Your task to perform on an android device: What's the weather going to be this weekend? Image 0: 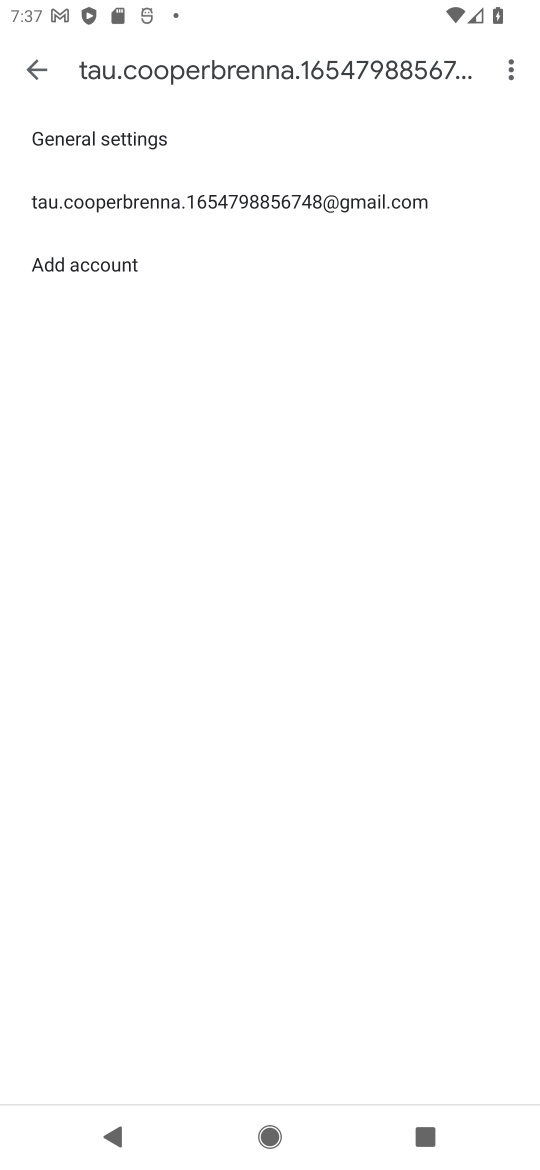
Step 0: press home button
Your task to perform on an android device: What's the weather going to be this weekend? Image 1: 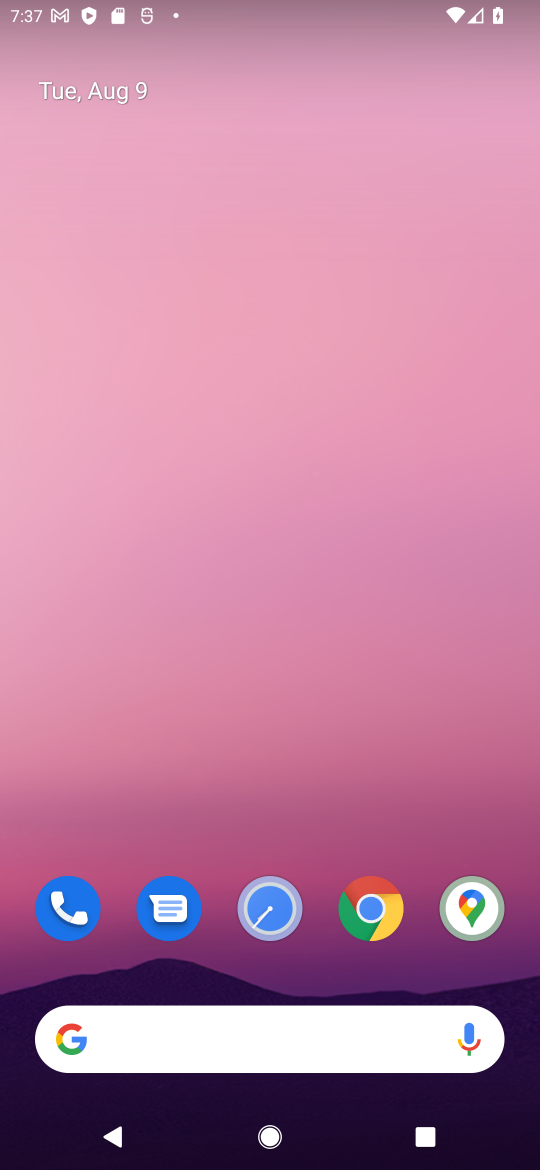
Step 1: drag from (306, 954) to (252, 84)
Your task to perform on an android device: What's the weather going to be this weekend? Image 2: 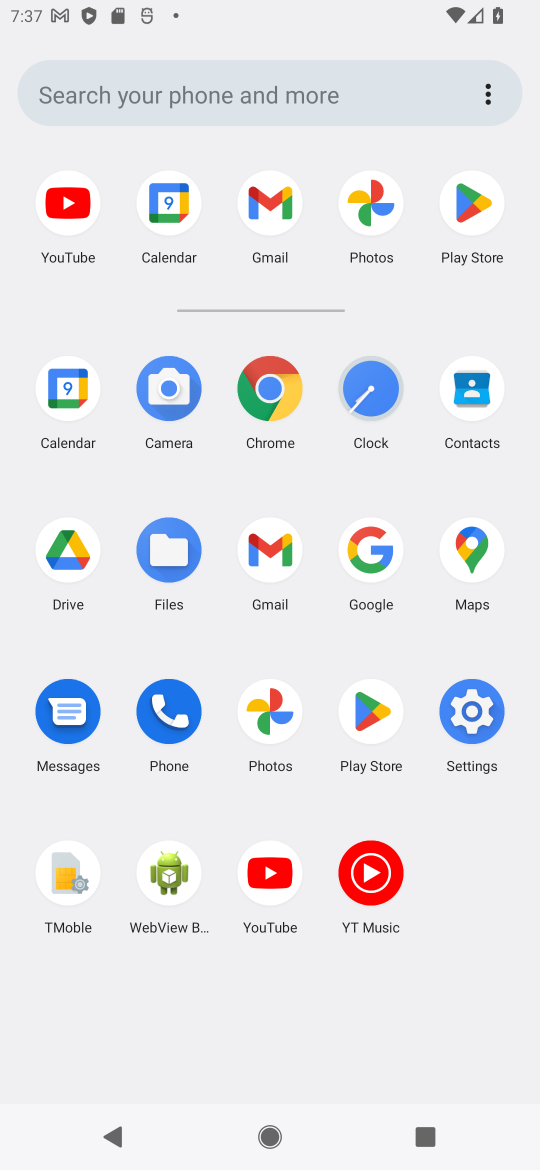
Step 2: click (366, 551)
Your task to perform on an android device: What's the weather going to be this weekend? Image 3: 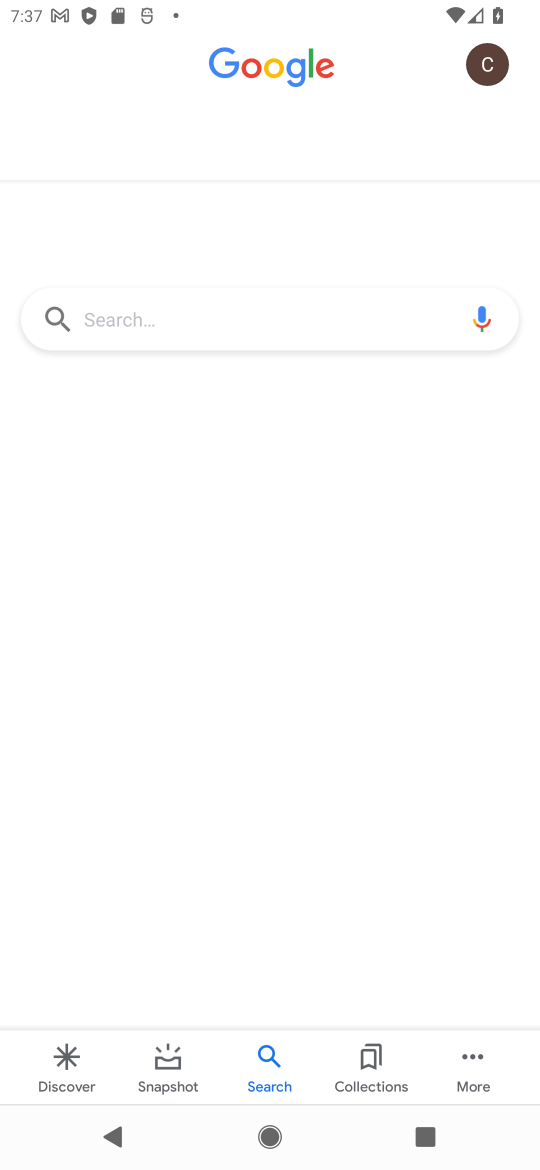
Step 3: click (257, 323)
Your task to perform on an android device: What's the weather going to be this weekend? Image 4: 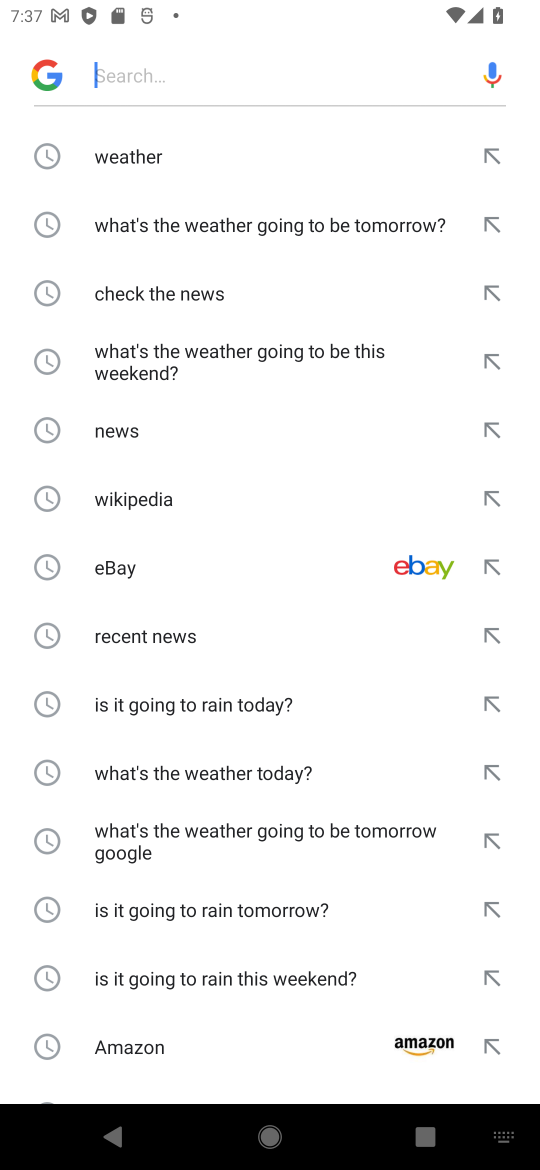
Step 4: click (126, 164)
Your task to perform on an android device: What's the weather going to be this weekend? Image 5: 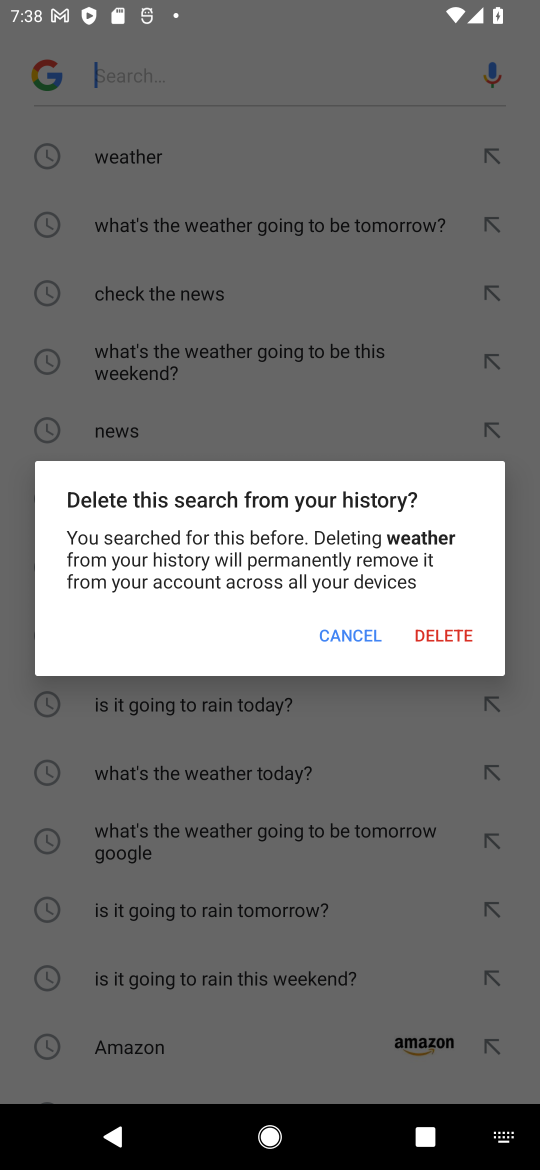
Step 5: click (348, 627)
Your task to perform on an android device: What's the weather going to be this weekend? Image 6: 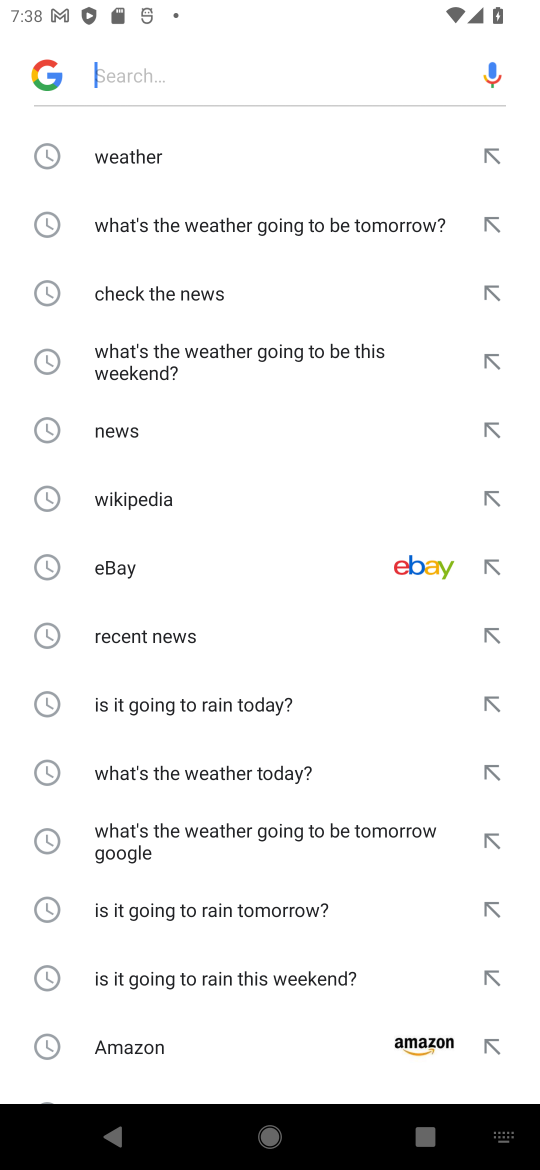
Step 6: type "Weather"
Your task to perform on an android device: What's the weather going to be this weekend? Image 7: 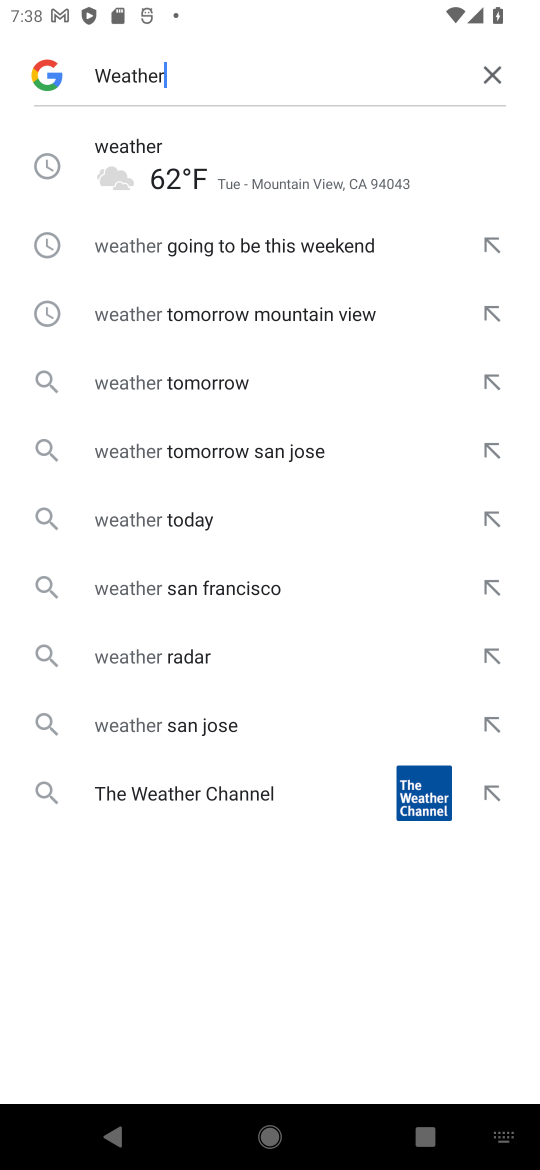
Step 7: click (149, 146)
Your task to perform on an android device: What's the weather going to be this weekend? Image 8: 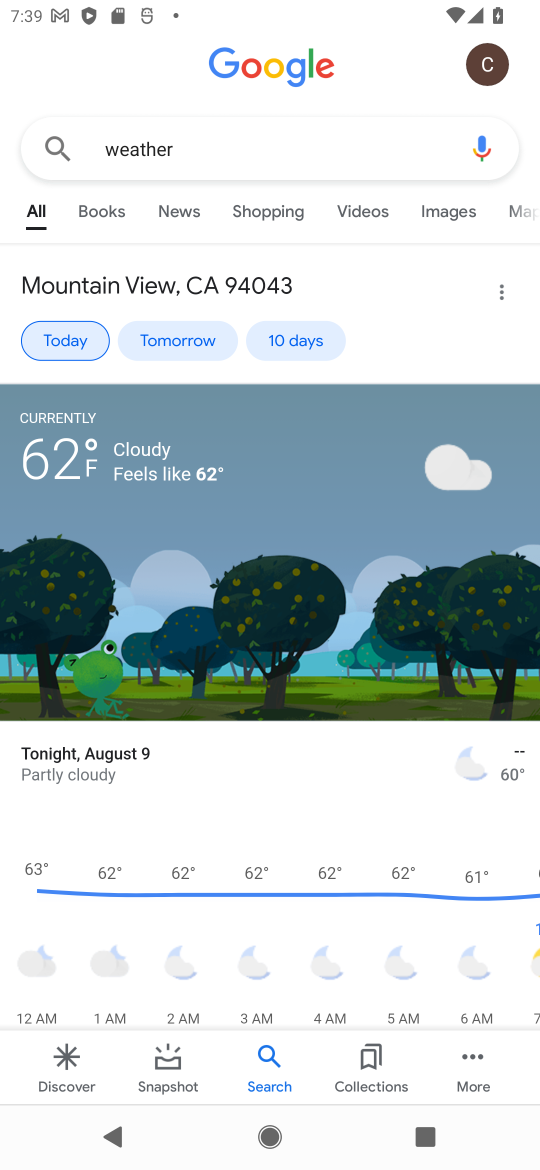
Step 8: click (304, 334)
Your task to perform on an android device: What's the weather going to be this weekend? Image 9: 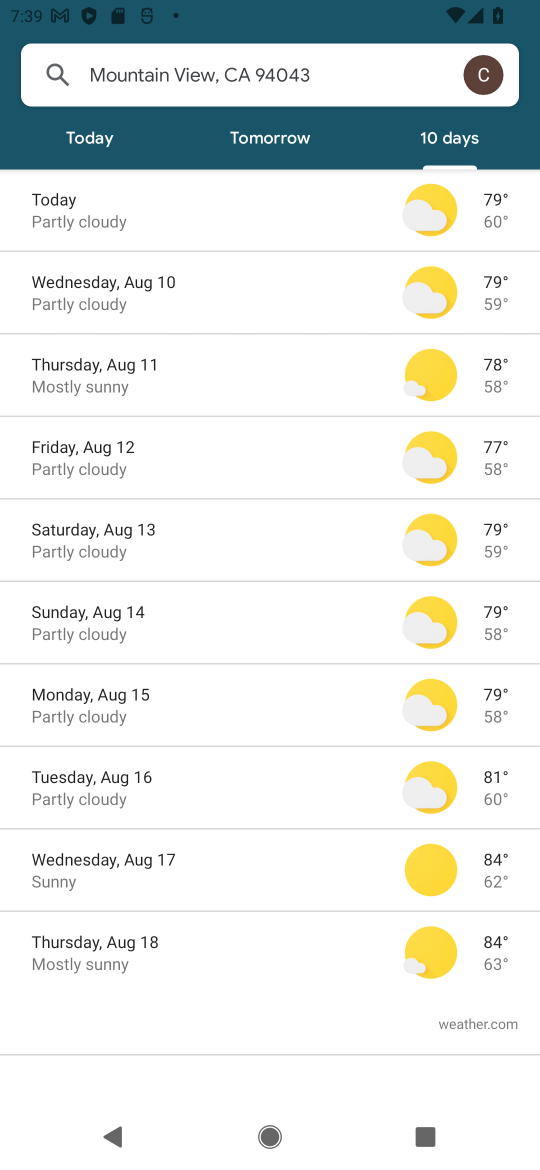
Step 9: click (90, 540)
Your task to perform on an android device: What's the weather going to be this weekend? Image 10: 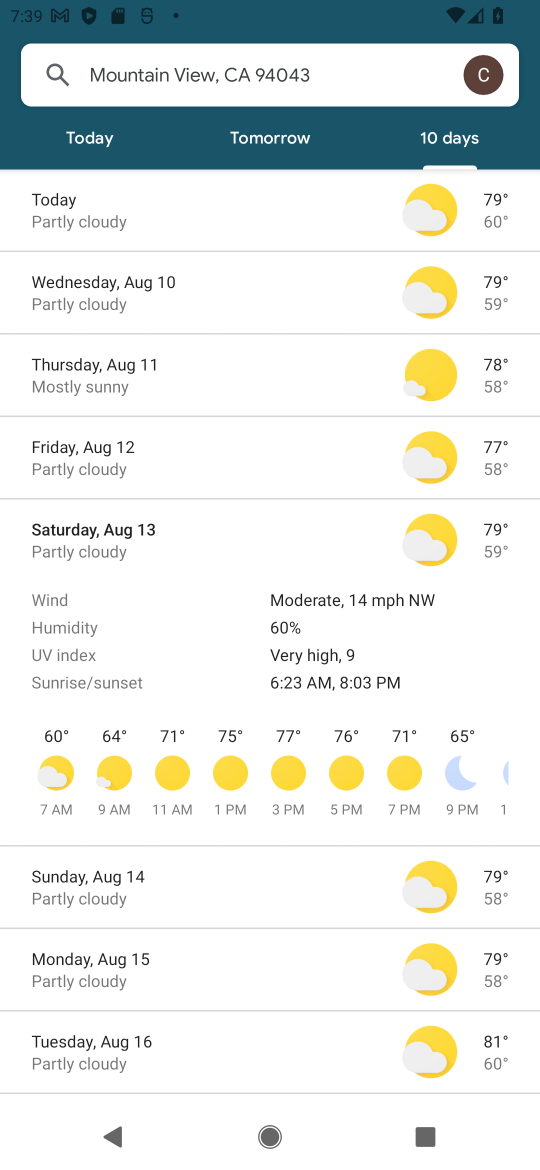
Step 10: task complete